Your task to perform on an android device: open app "Instagram" (install if not already installed) and go to login screen Image 0: 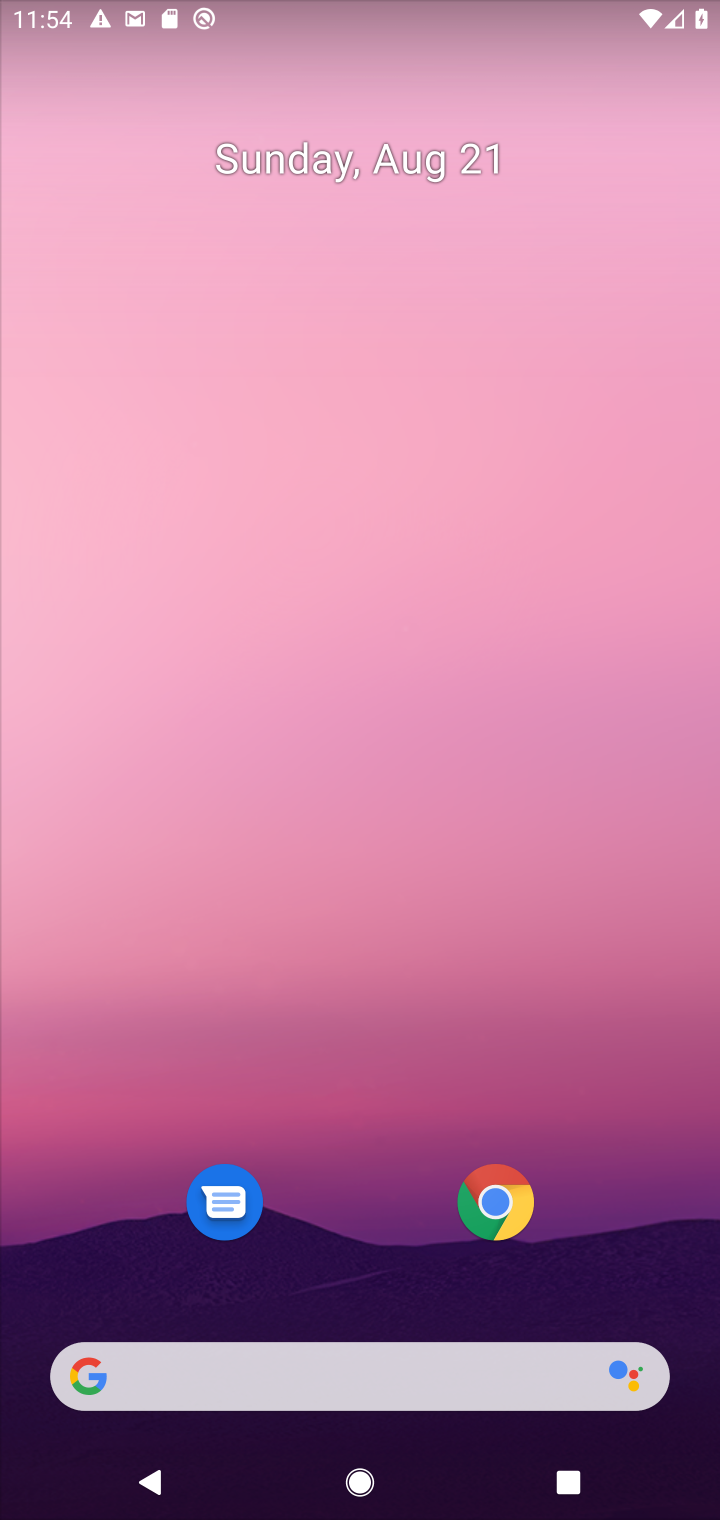
Step 0: drag from (370, 881) to (354, 85)
Your task to perform on an android device: open app "Instagram" (install if not already installed) and go to login screen Image 1: 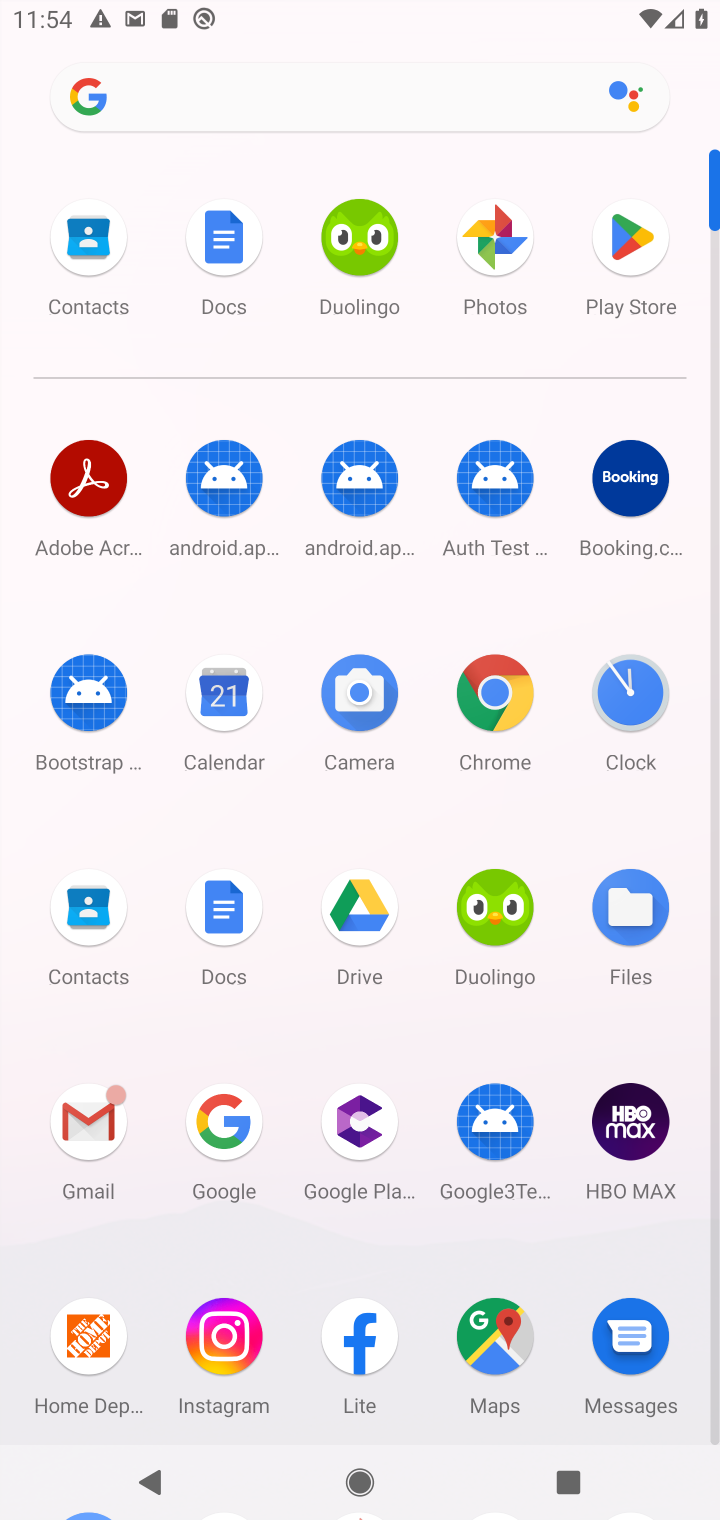
Step 1: click (221, 1344)
Your task to perform on an android device: open app "Instagram" (install if not already installed) and go to login screen Image 2: 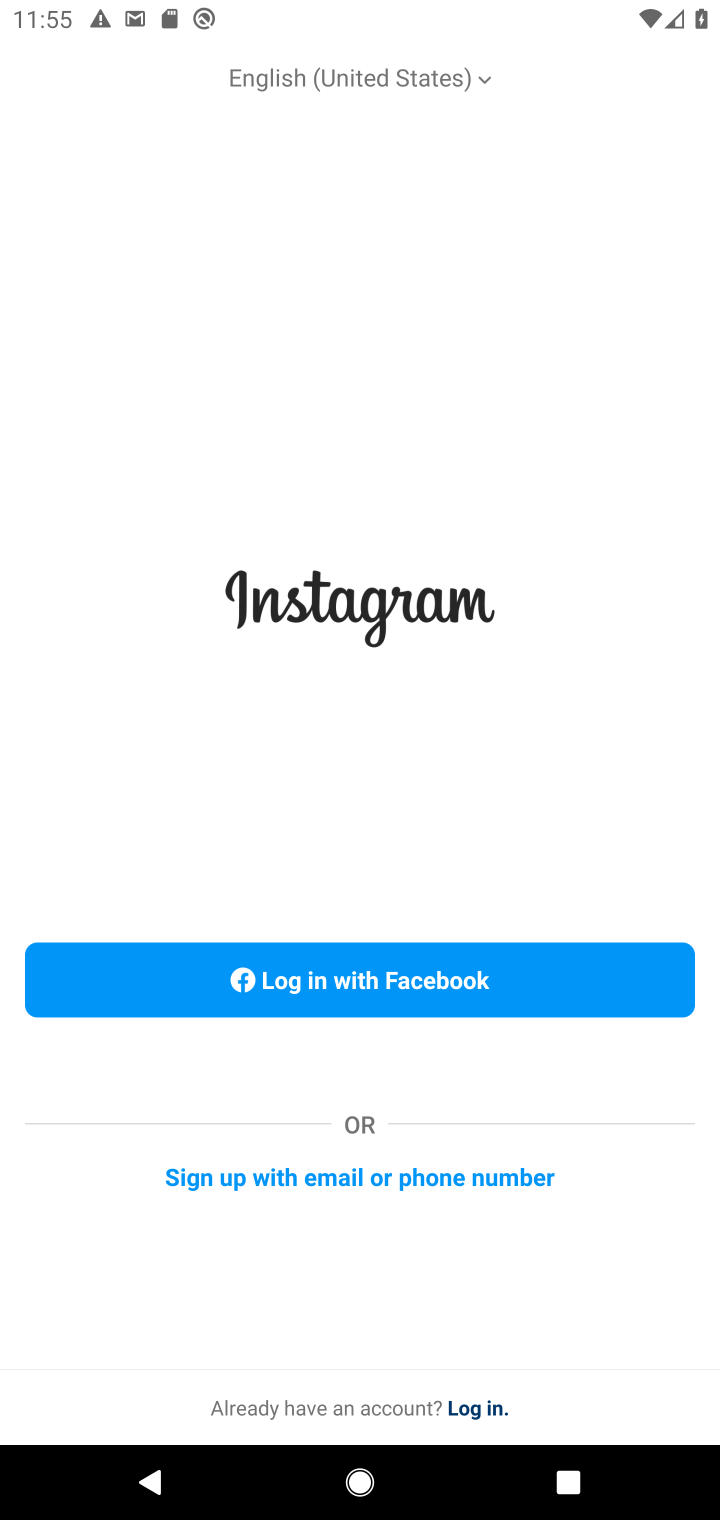
Step 2: task complete